Your task to perform on an android device: check the backup settings in the google photos Image 0: 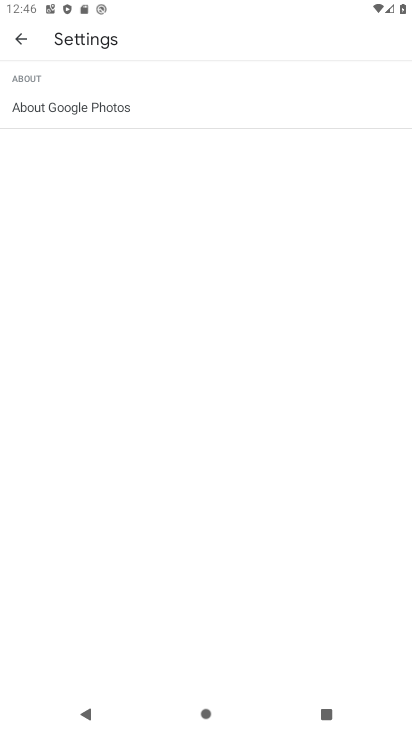
Step 0: press back button
Your task to perform on an android device: check the backup settings in the google photos Image 1: 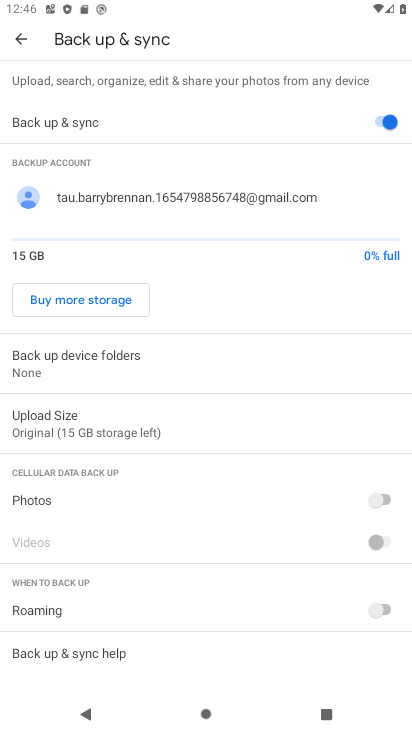
Step 1: press back button
Your task to perform on an android device: check the backup settings in the google photos Image 2: 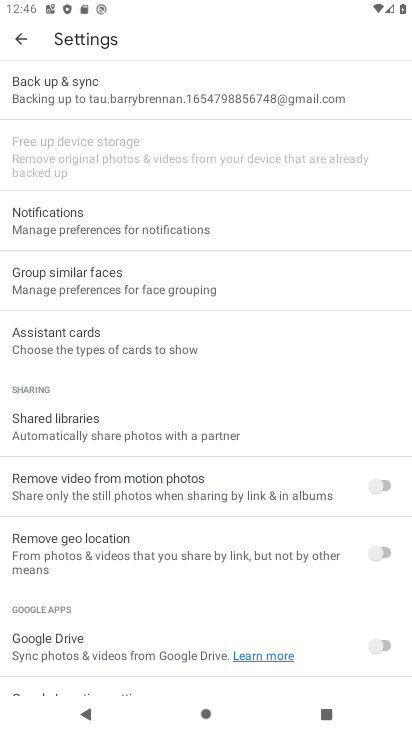
Step 2: press back button
Your task to perform on an android device: check the backup settings in the google photos Image 3: 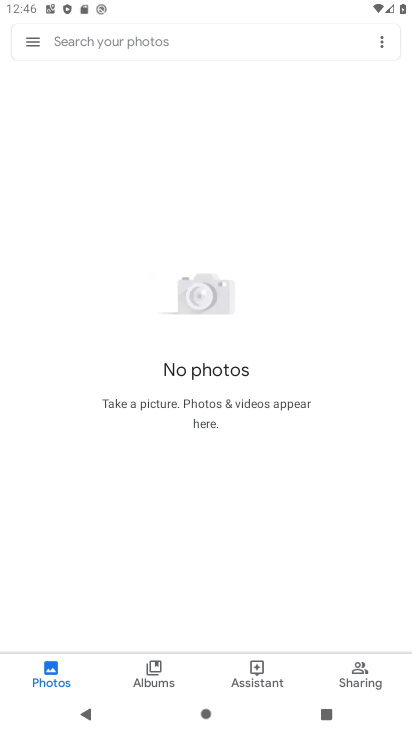
Step 3: press back button
Your task to perform on an android device: check the backup settings in the google photos Image 4: 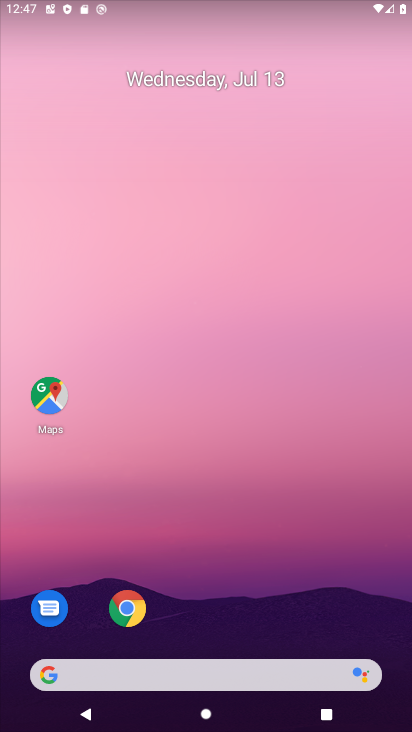
Step 4: drag from (187, 611) to (274, 68)
Your task to perform on an android device: check the backup settings in the google photos Image 5: 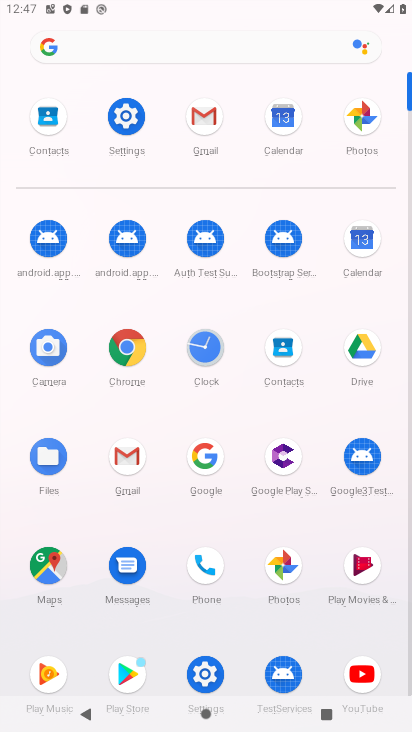
Step 5: click (276, 565)
Your task to perform on an android device: check the backup settings in the google photos Image 6: 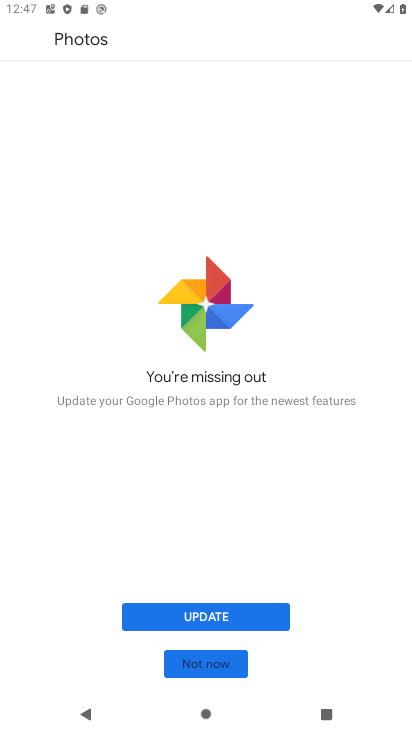
Step 6: click (205, 667)
Your task to perform on an android device: check the backup settings in the google photos Image 7: 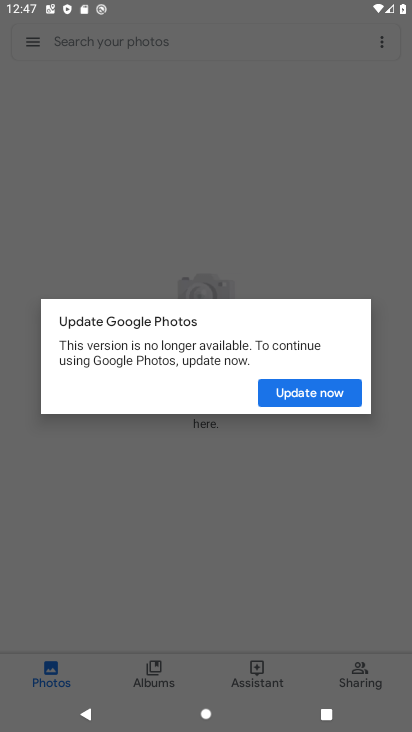
Step 7: click (297, 394)
Your task to perform on an android device: check the backup settings in the google photos Image 8: 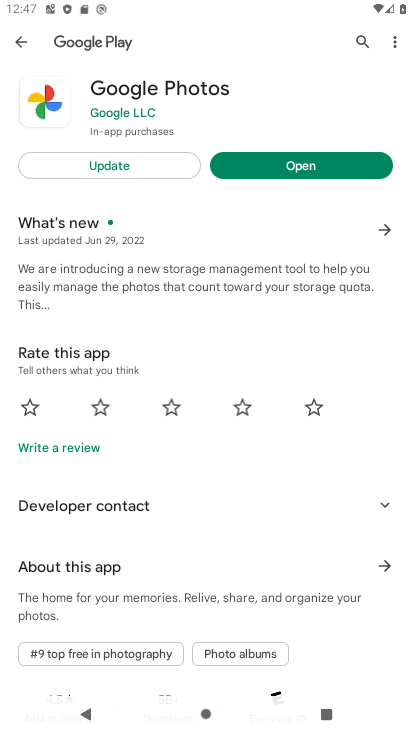
Step 8: click (277, 166)
Your task to perform on an android device: check the backup settings in the google photos Image 9: 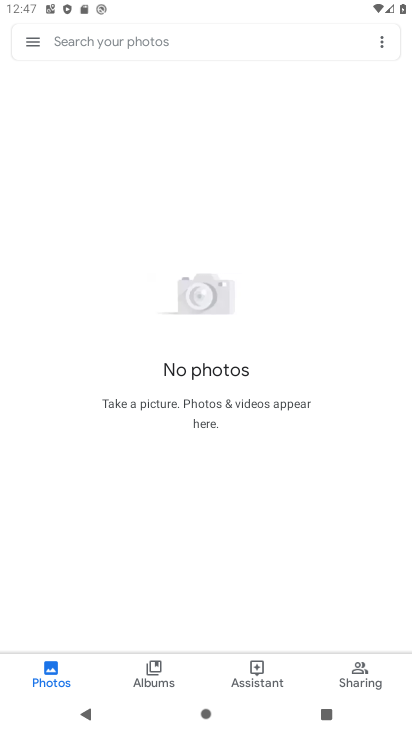
Step 9: click (32, 42)
Your task to perform on an android device: check the backup settings in the google photos Image 10: 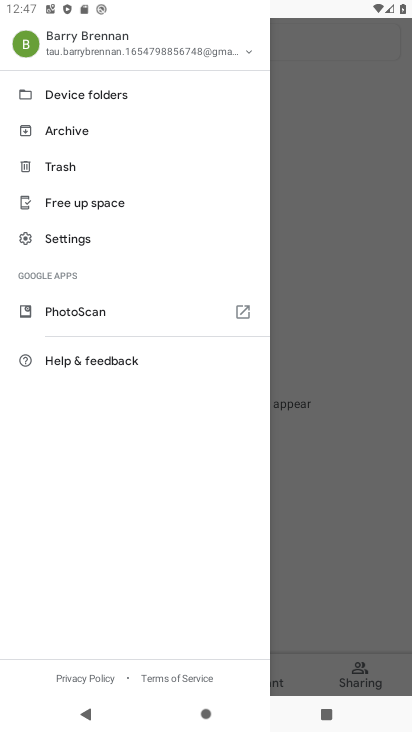
Step 10: click (61, 236)
Your task to perform on an android device: check the backup settings in the google photos Image 11: 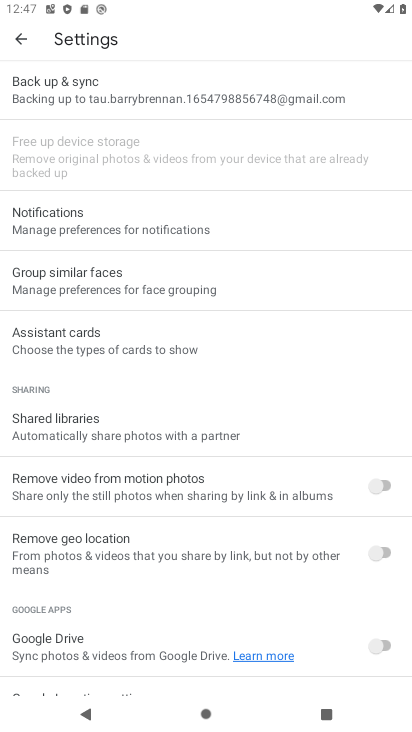
Step 11: click (105, 97)
Your task to perform on an android device: check the backup settings in the google photos Image 12: 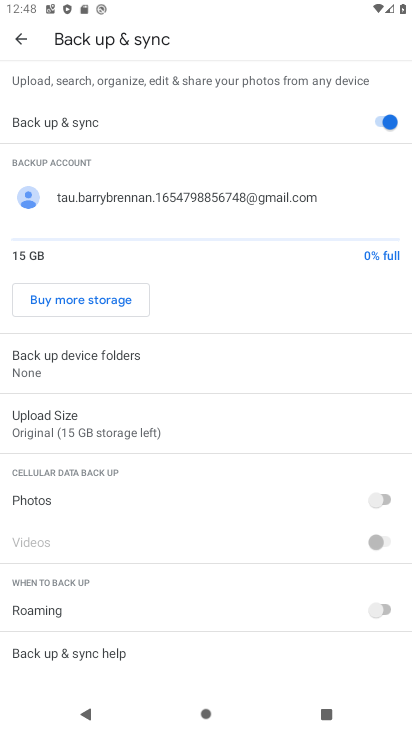
Step 12: task complete